Your task to perform on an android device: Open Wikipedia Image 0: 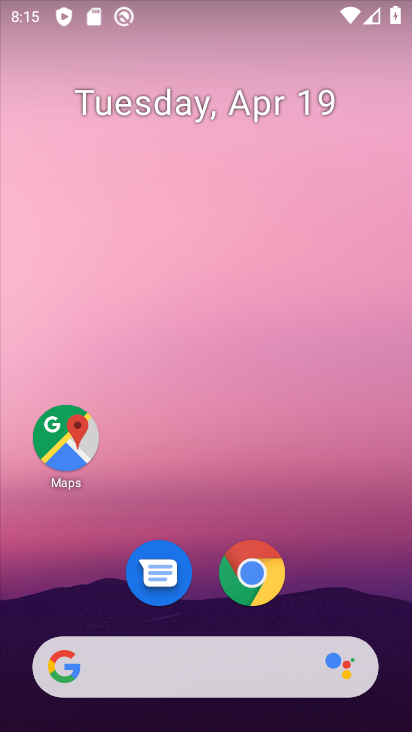
Step 0: drag from (341, 554) to (340, 139)
Your task to perform on an android device: Open Wikipedia Image 1: 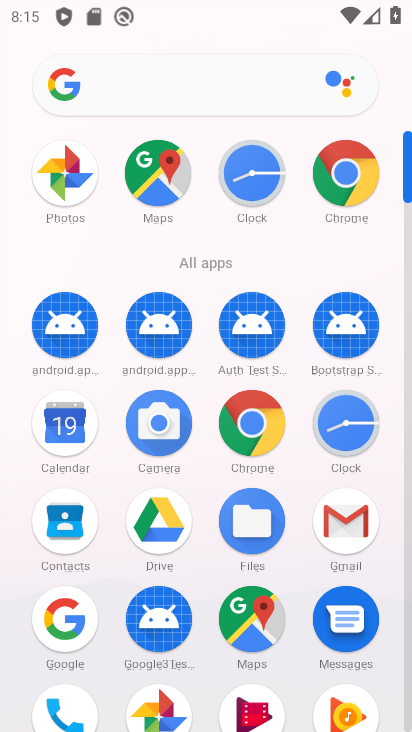
Step 1: click (348, 169)
Your task to perform on an android device: Open Wikipedia Image 2: 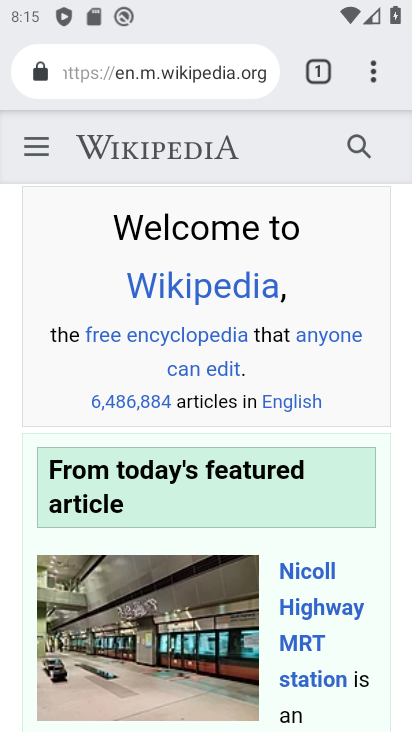
Step 2: task complete